Your task to perform on an android device: turn pop-ups on in chrome Image 0: 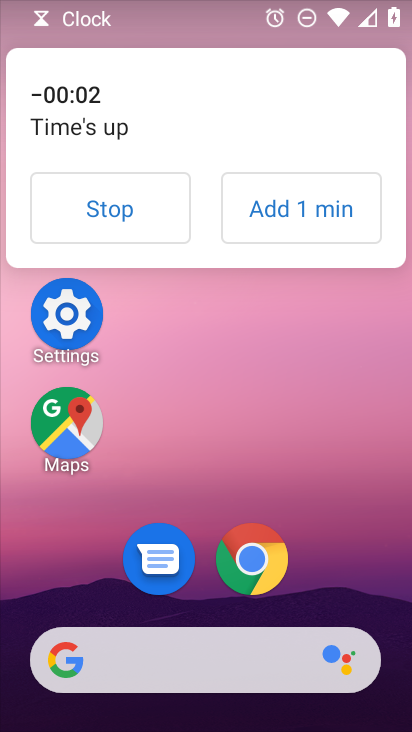
Step 0: click (72, 208)
Your task to perform on an android device: turn pop-ups on in chrome Image 1: 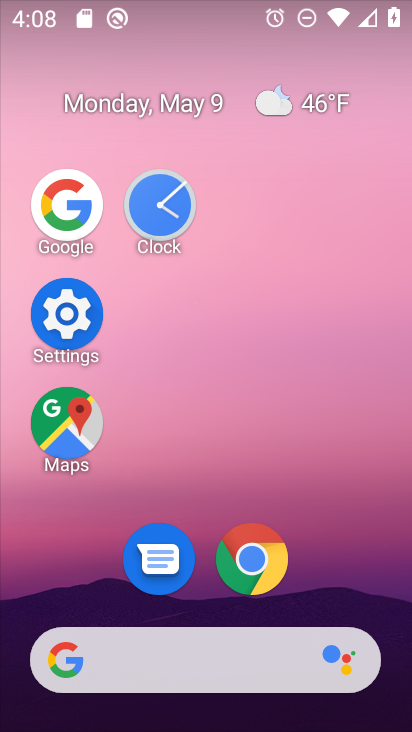
Step 1: click (277, 558)
Your task to perform on an android device: turn pop-ups on in chrome Image 2: 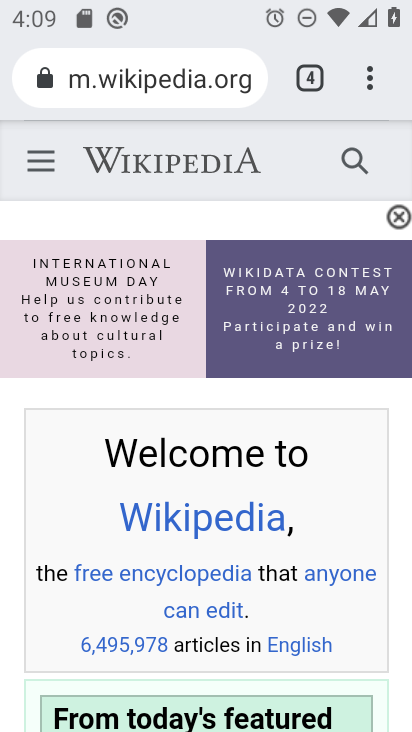
Step 2: click (370, 79)
Your task to perform on an android device: turn pop-ups on in chrome Image 3: 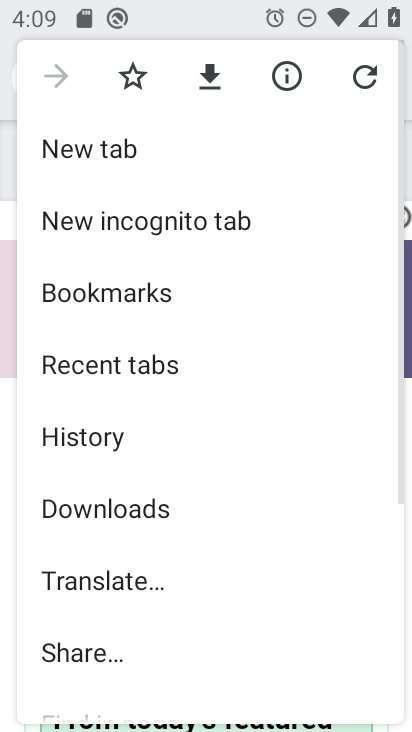
Step 3: drag from (263, 532) to (297, 211)
Your task to perform on an android device: turn pop-ups on in chrome Image 4: 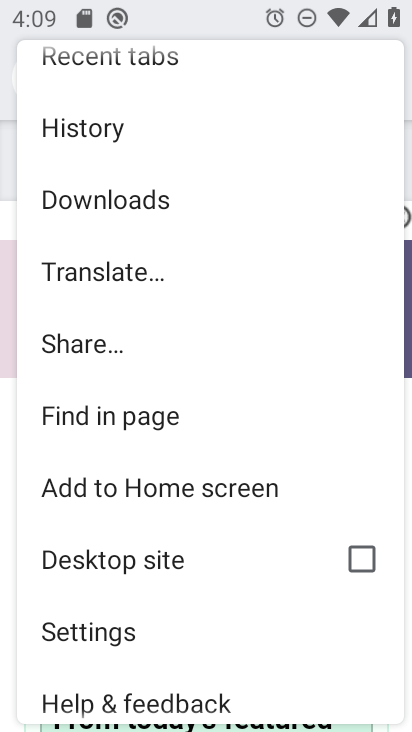
Step 4: click (164, 633)
Your task to perform on an android device: turn pop-ups on in chrome Image 5: 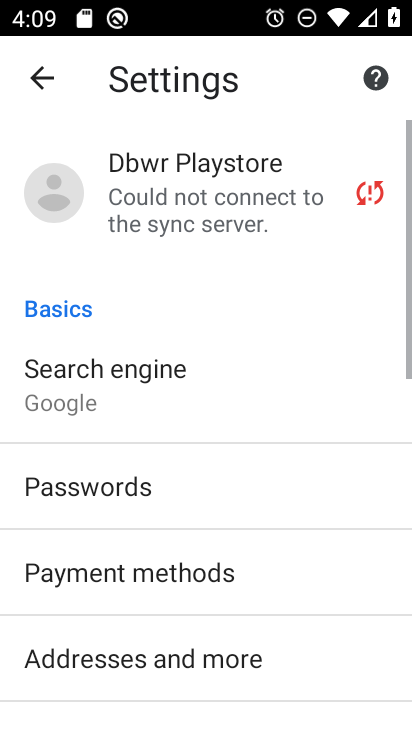
Step 5: drag from (169, 627) to (231, 257)
Your task to perform on an android device: turn pop-ups on in chrome Image 6: 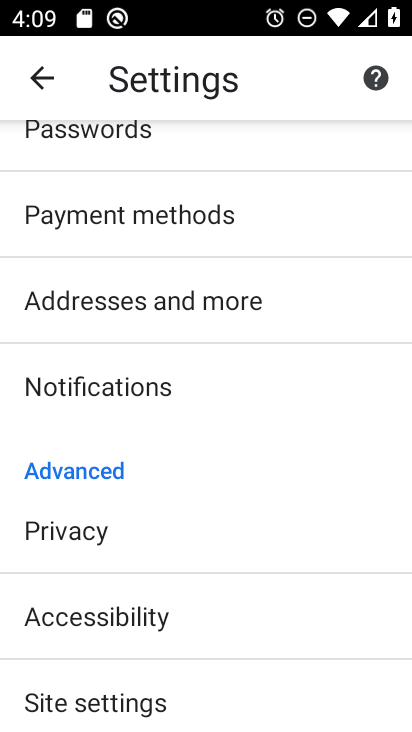
Step 6: drag from (217, 620) to (280, 233)
Your task to perform on an android device: turn pop-ups on in chrome Image 7: 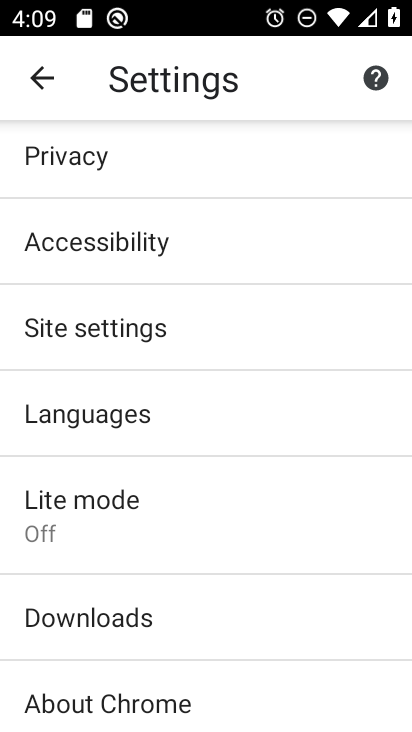
Step 7: click (241, 336)
Your task to perform on an android device: turn pop-ups on in chrome Image 8: 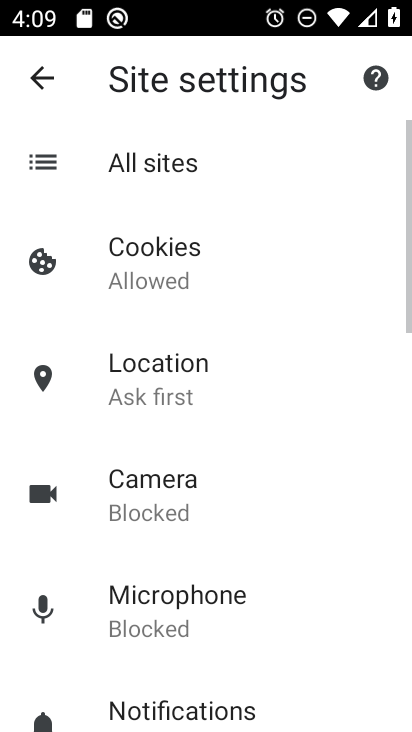
Step 8: drag from (220, 591) to (265, 216)
Your task to perform on an android device: turn pop-ups on in chrome Image 9: 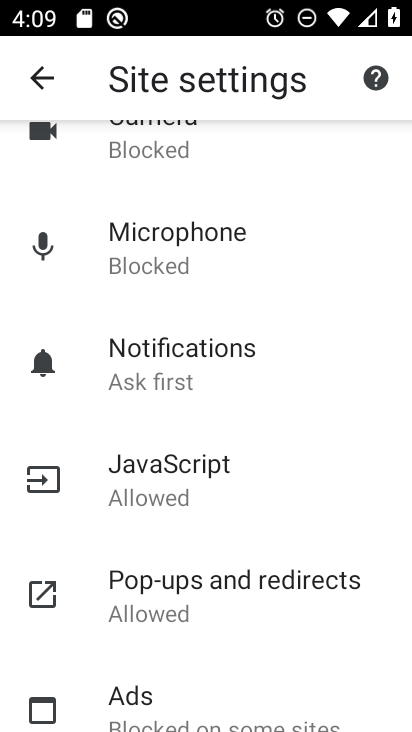
Step 9: click (230, 586)
Your task to perform on an android device: turn pop-ups on in chrome Image 10: 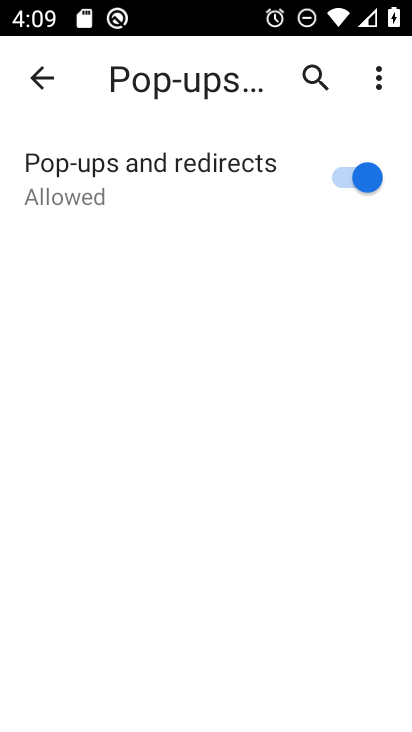
Step 10: task complete